Your task to perform on an android device: turn off smart reply in the gmail app Image 0: 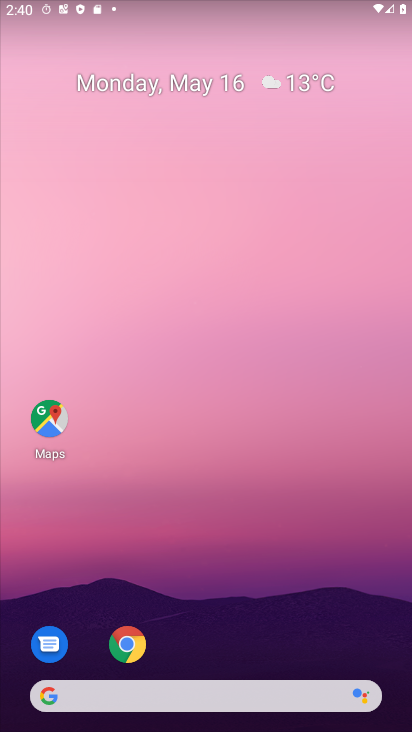
Step 0: drag from (182, 640) to (221, 166)
Your task to perform on an android device: turn off smart reply in the gmail app Image 1: 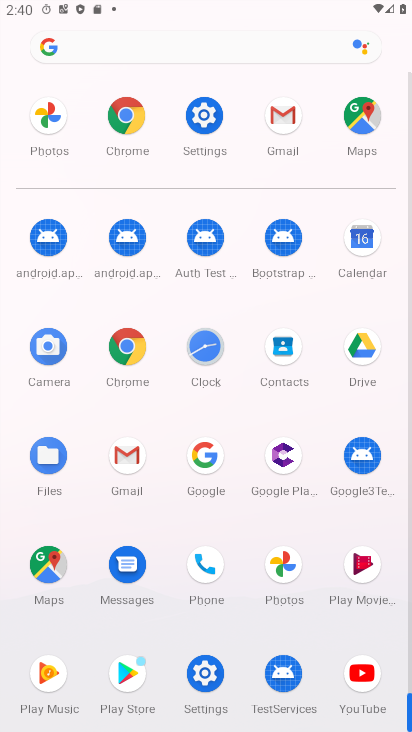
Step 1: click (145, 469)
Your task to perform on an android device: turn off smart reply in the gmail app Image 2: 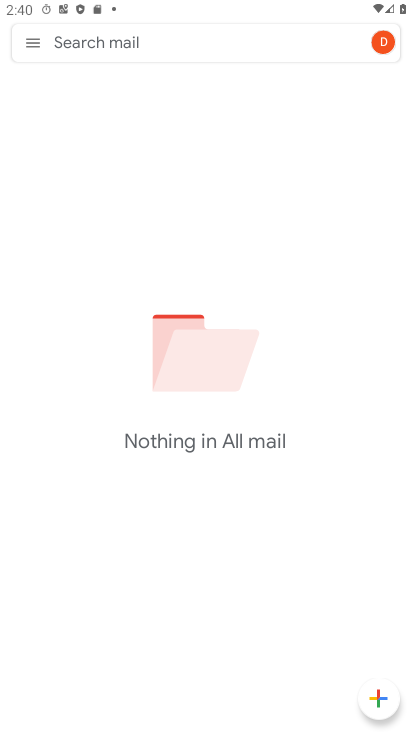
Step 2: click (39, 41)
Your task to perform on an android device: turn off smart reply in the gmail app Image 3: 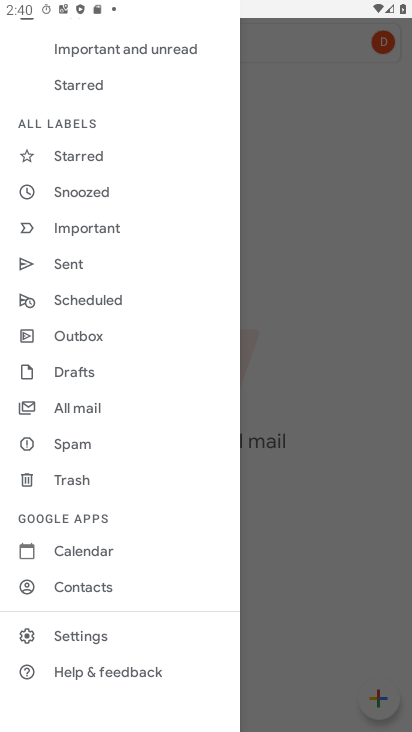
Step 3: click (131, 632)
Your task to perform on an android device: turn off smart reply in the gmail app Image 4: 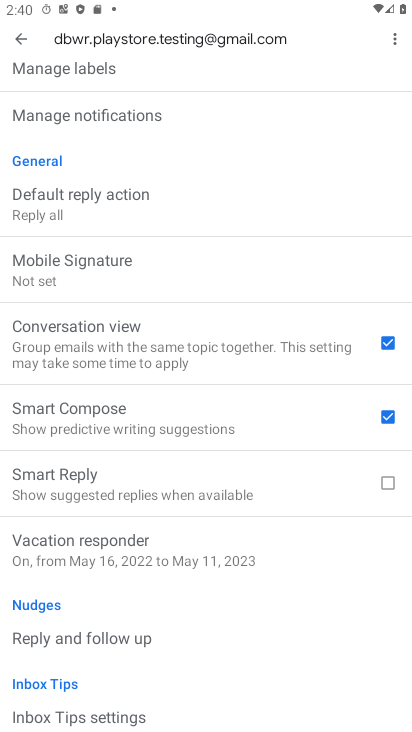
Step 4: task complete